Your task to perform on an android device: Check the news Image 0: 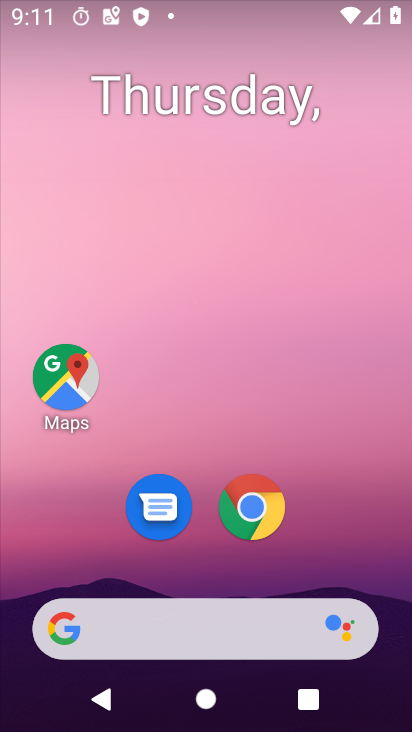
Step 0: click (178, 624)
Your task to perform on an android device: Check the news Image 1: 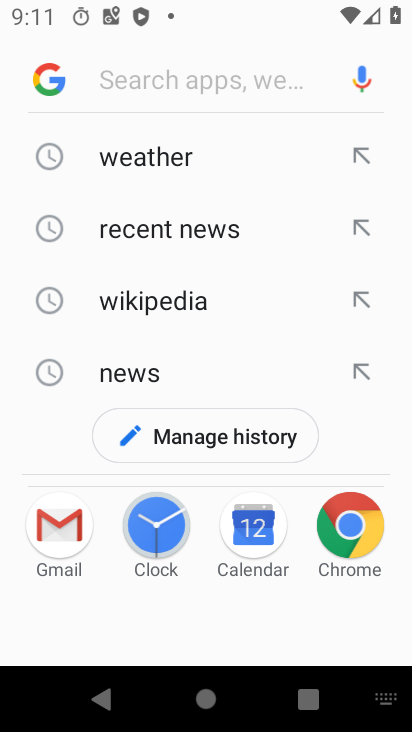
Step 1: click (172, 380)
Your task to perform on an android device: Check the news Image 2: 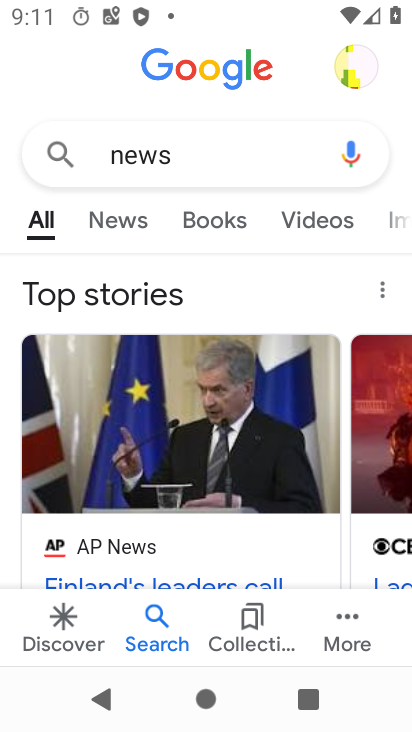
Step 2: task complete